Your task to perform on an android device: turn on the 24-hour format for clock Image 0: 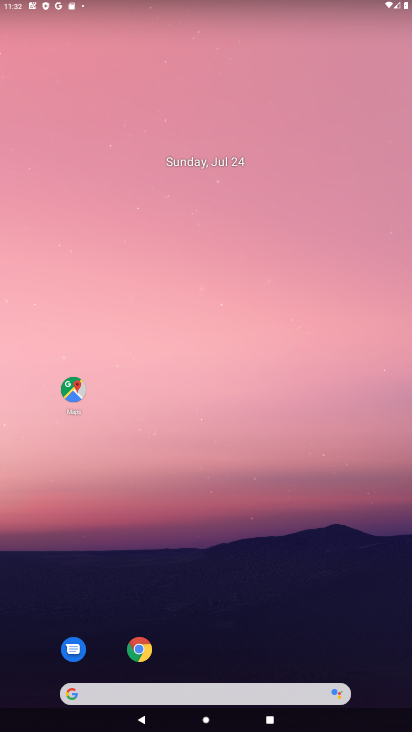
Step 0: press home button
Your task to perform on an android device: turn on the 24-hour format for clock Image 1: 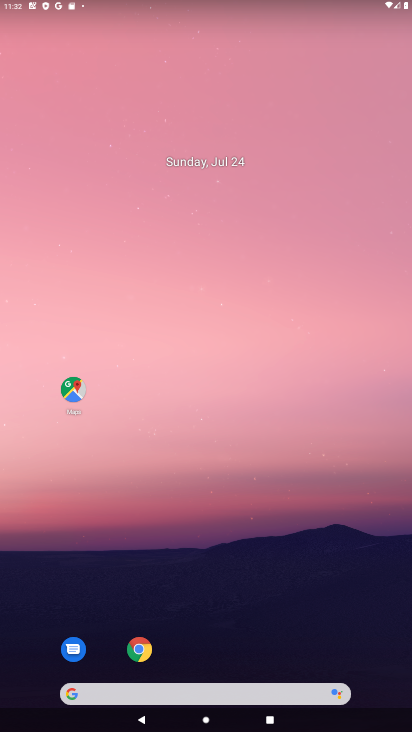
Step 1: press home button
Your task to perform on an android device: turn on the 24-hour format for clock Image 2: 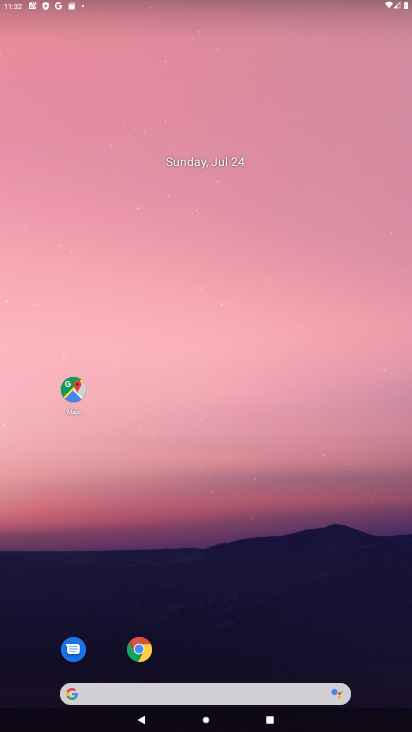
Step 2: drag from (223, 659) to (306, 0)
Your task to perform on an android device: turn on the 24-hour format for clock Image 3: 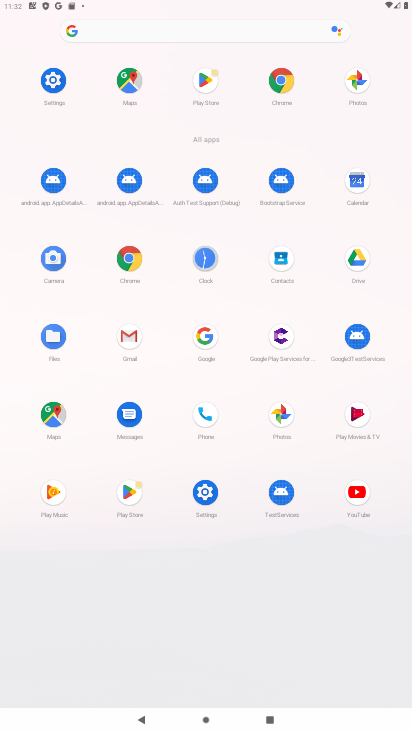
Step 3: click (206, 255)
Your task to perform on an android device: turn on the 24-hour format for clock Image 4: 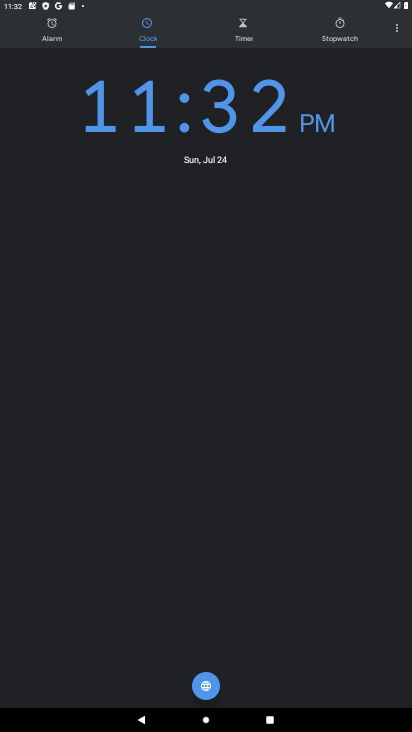
Step 4: click (391, 29)
Your task to perform on an android device: turn on the 24-hour format for clock Image 5: 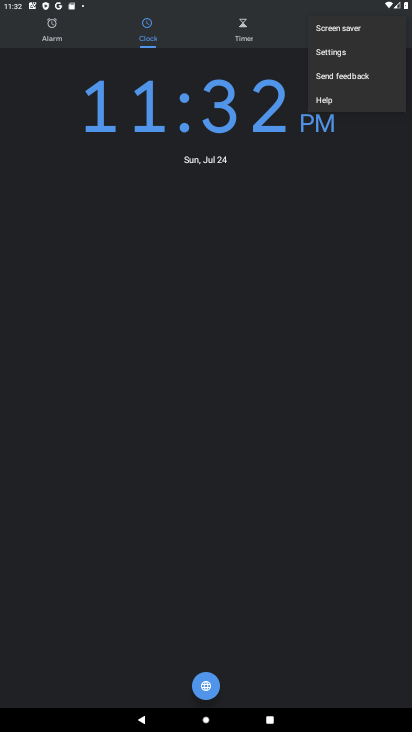
Step 5: click (356, 51)
Your task to perform on an android device: turn on the 24-hour format for clock Image 6: 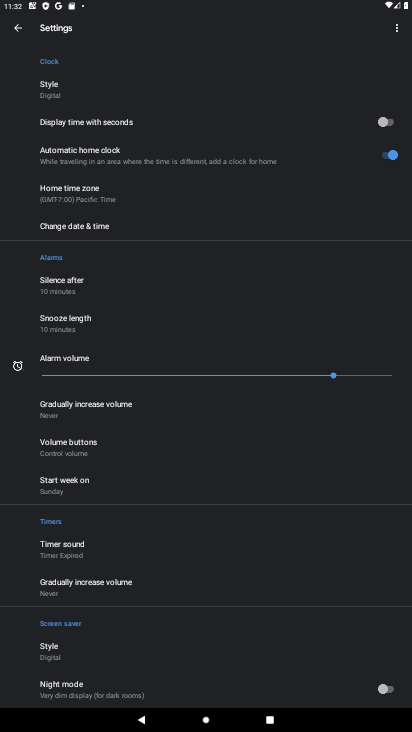
Step 6: click (125, 227)
Your task to perform on an android device: turn on the 24-hour format for clock Image 7: 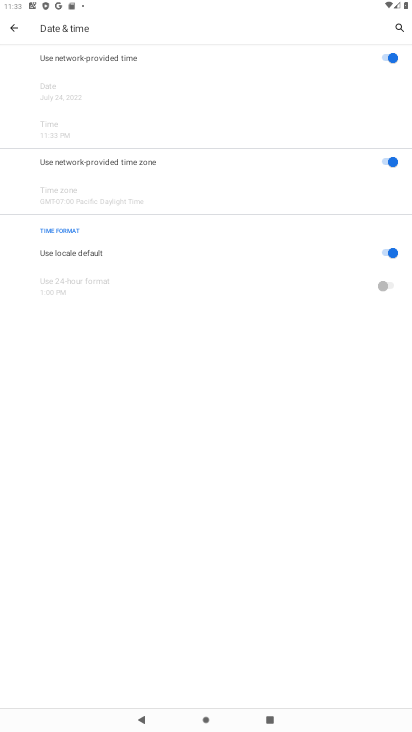
Step 7: click (386, 250)
Your task to perform on an android device: turn on the 24-hour format for clock Image 8: 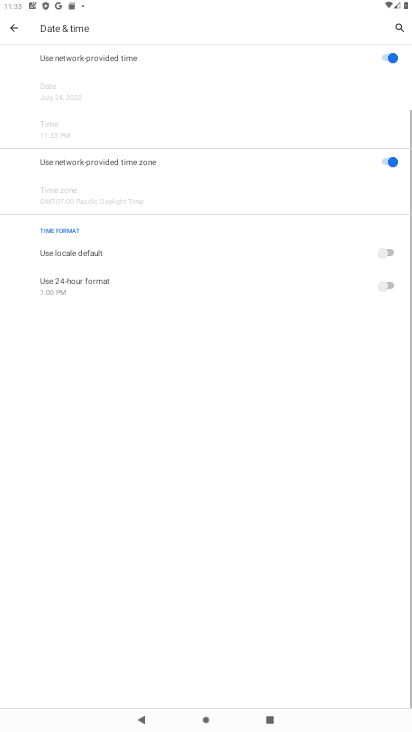
Step 8: click (390, 280)
Your task to perform on an android device: turn on the 24-hour format for clock Image 9: 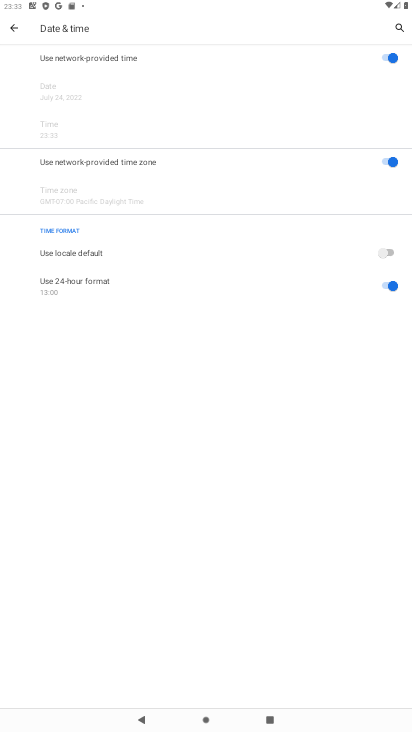
Step 9: task complete